Your task to perform on an android device: Open settings Image 0: 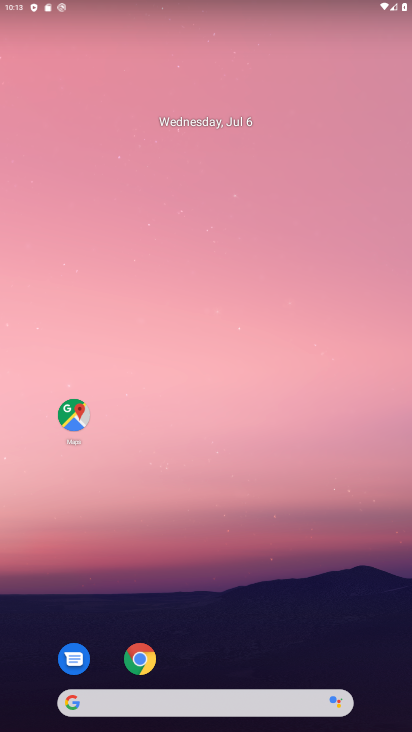
Step 0: press home button
Your task to perform on an android device: Open settings Image 1: 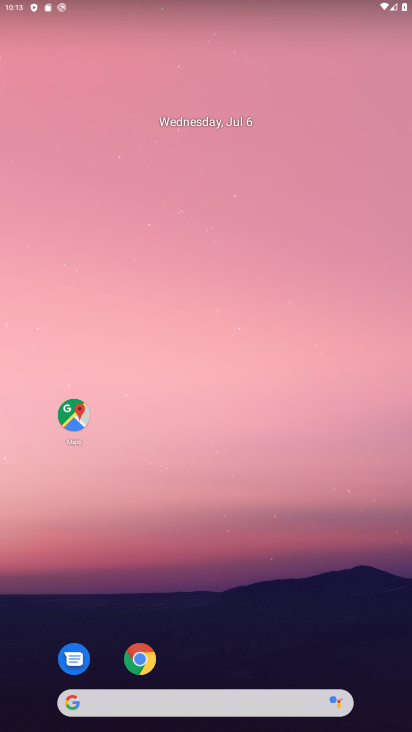
Step 1: drag from (207, 673) to (201, 9)
Your task to perform on an android device: Open settings Image 2: 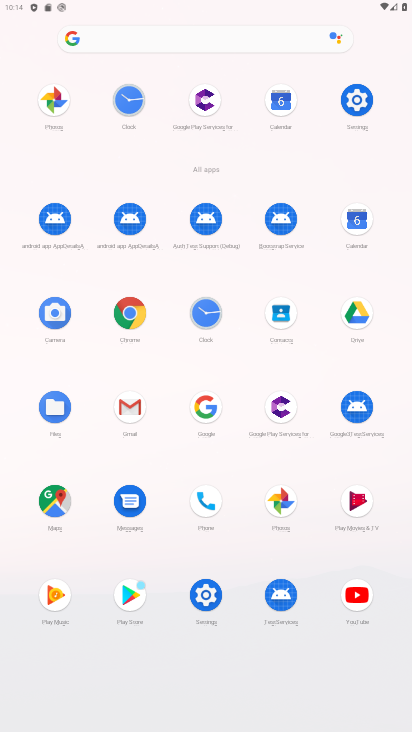
Step 2: click (352, 95)
Your task to perform on an android device: Open settings Image 3: 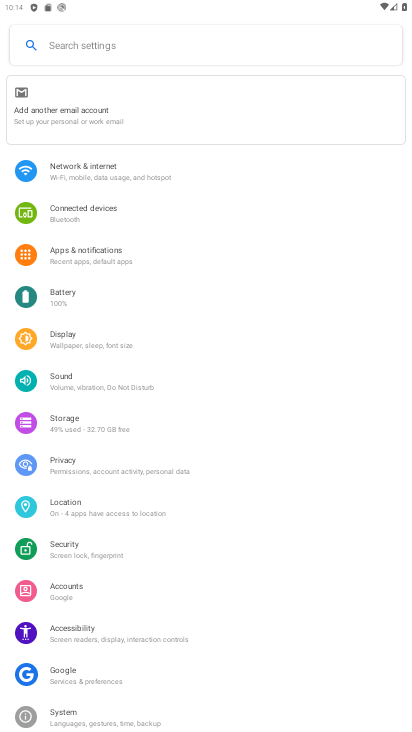
Step 3: drag from (186, 591) to (218, 90)
Your task to perform on an android device: Open settings Image 4: 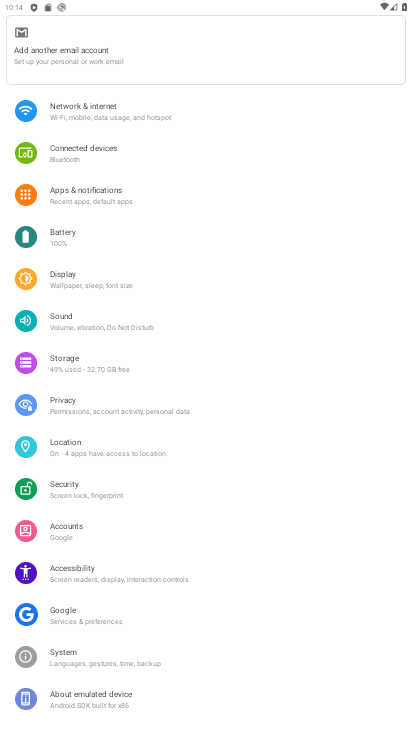
Step 4: click (172, 635)
Your task to perform on an android device: Open settings Image 5: 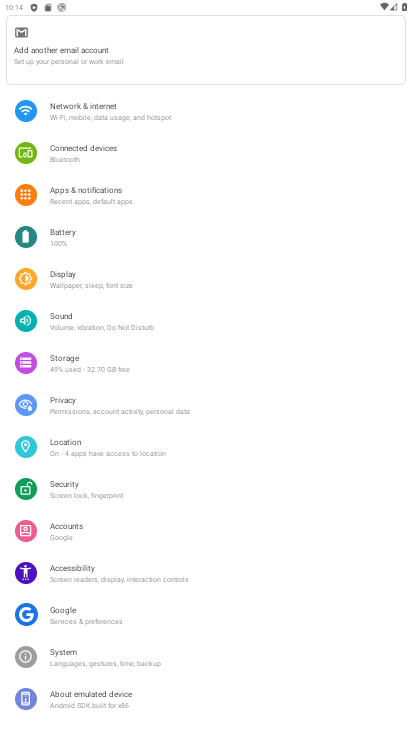
Step 5: task complete